Your task to perform on an android device: Go to Yahoo.com Image 0: 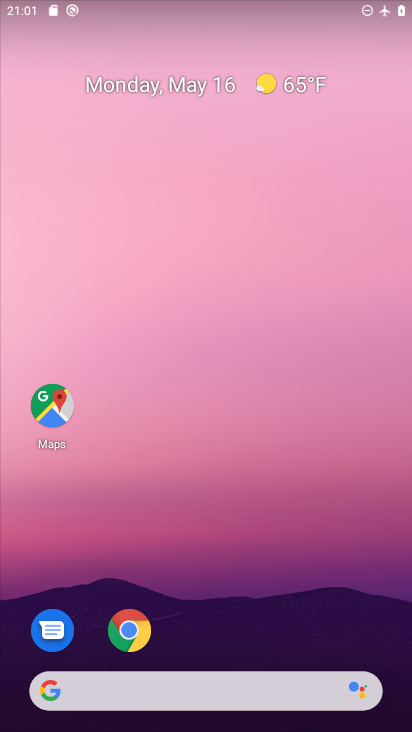
Step 0: click (140, 645)
Your task to perform on an android device: Go to Yahoo.com Image 1: 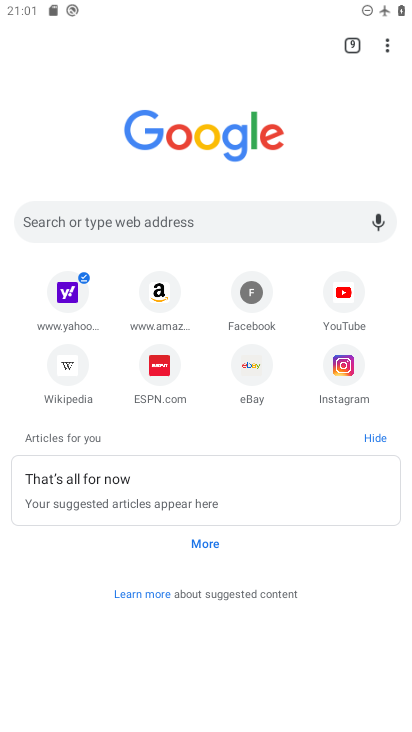
Step 1: click (73, 278)
Your task to perform on an android device: Go to Yahoo.com Image 2: 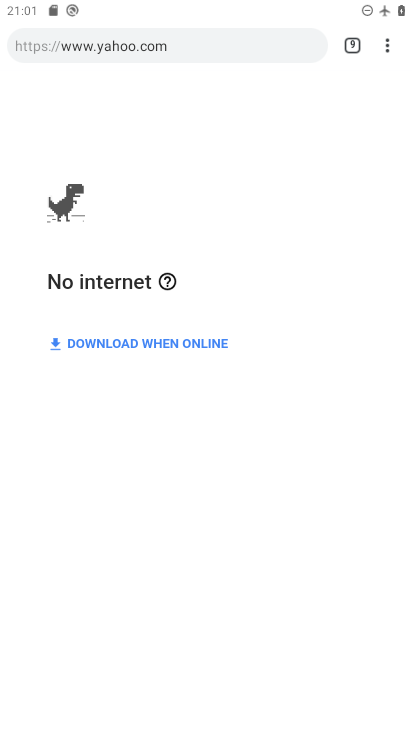
Step 2: task complete